Your task to perform on an android device: check storage Image 0: 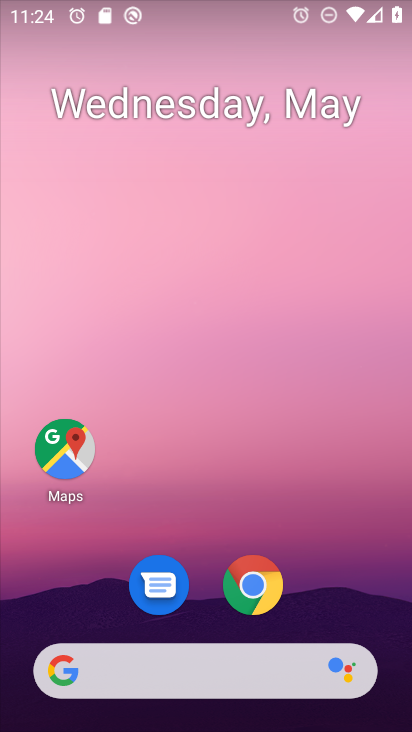
Step 0: drag from (284, 495) to (287, 6)
Your task to perform on an android device: check storage Image 1: 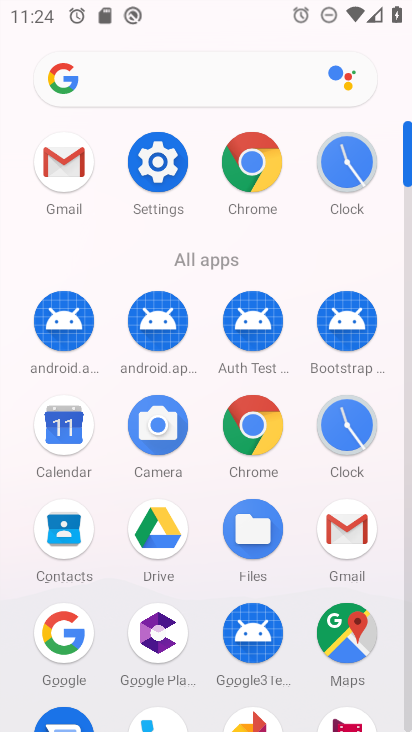
Step 1: click (155, 174)
Your task to perform on an android device: check storage Image 2: 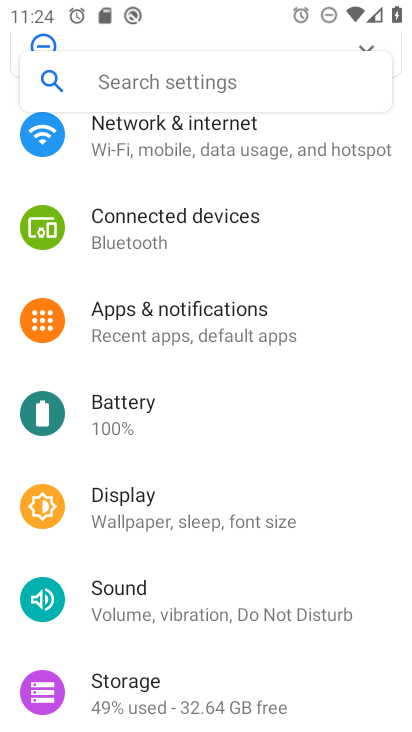
Step 2: click (231, 693)
Your task to perform on an android device: check storage Image 3: 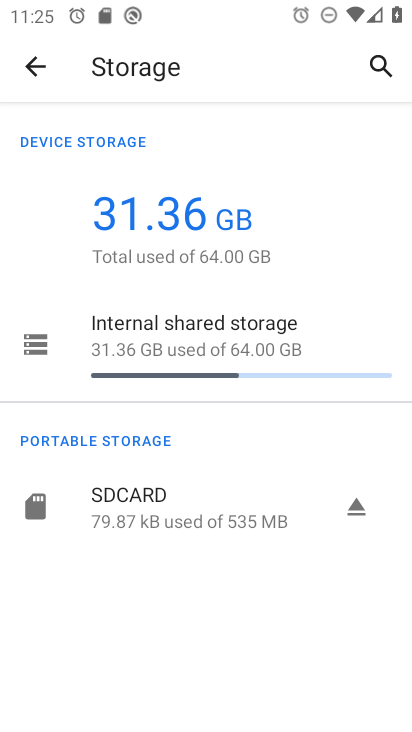
Step 3: task complete